Your task to perform on an android device: toggle notifications settings in the gmail app Image 0: 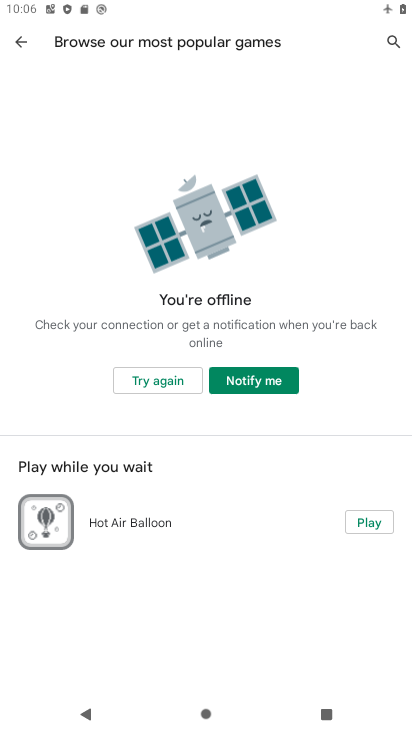
Step 0: press home button
Your task to perform on an android device: toggle notifications settings in the gmail app Image 1: 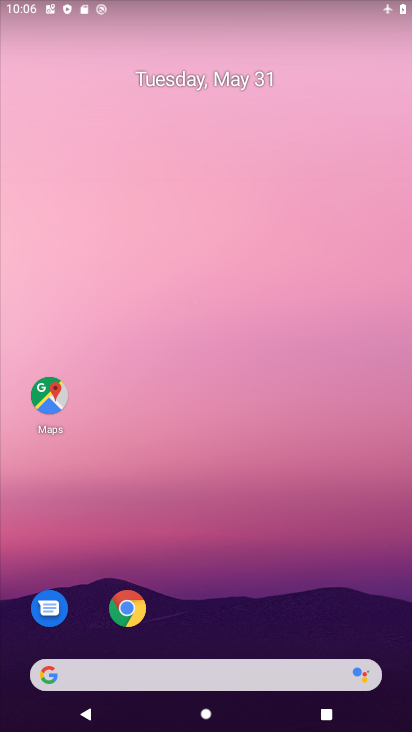
Step 1: drag from (190, 645) to (175, 17)
Your task to perform on an android device: toggle notifications settings in the gmail app Image 2: 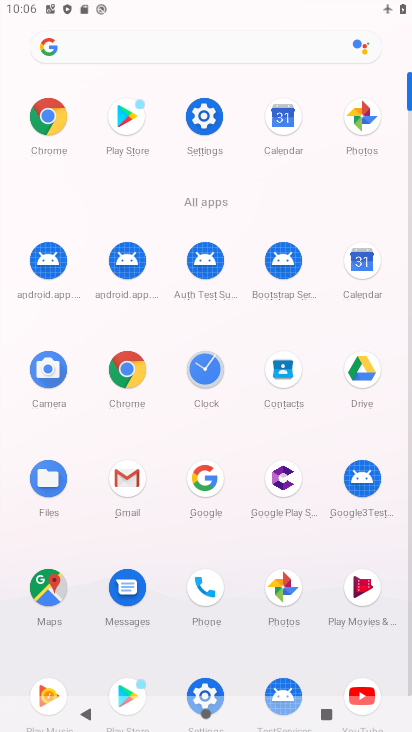
Step 2: click (132, 485)
Your task to perform on an android device: toggle notifications settings in the gmail app Image 3: 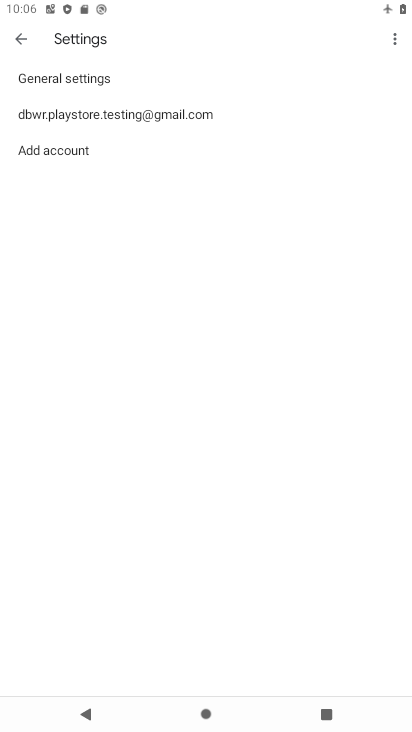
Step 3: click (87, 82)
Your task to perform on an android device: toggle notifications settings in the gmail app Image 4: 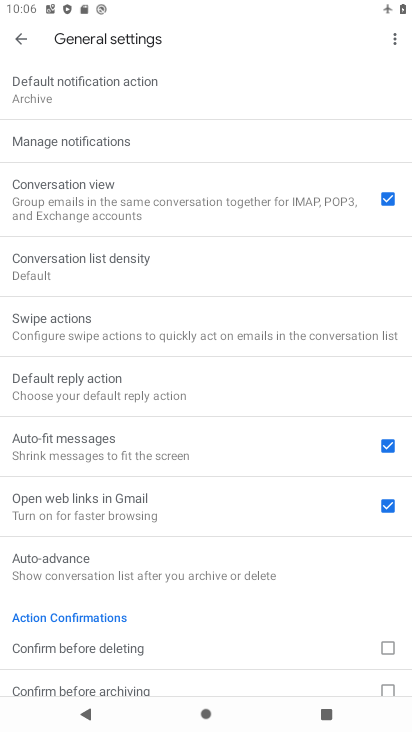
Step 4: click (63, 137)
Your task to perform on an android device: toggle notifications settings in the gmail app Image 5: 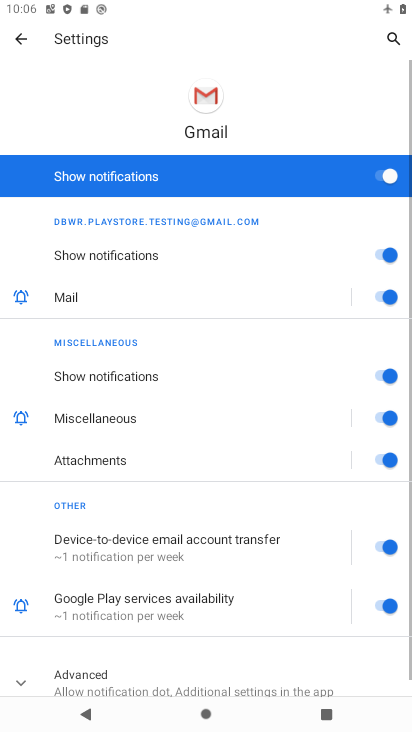
Step 5: click (384, 165)
Your task to perform on an android device: toggle notifications settings in the gmail app Image 6: 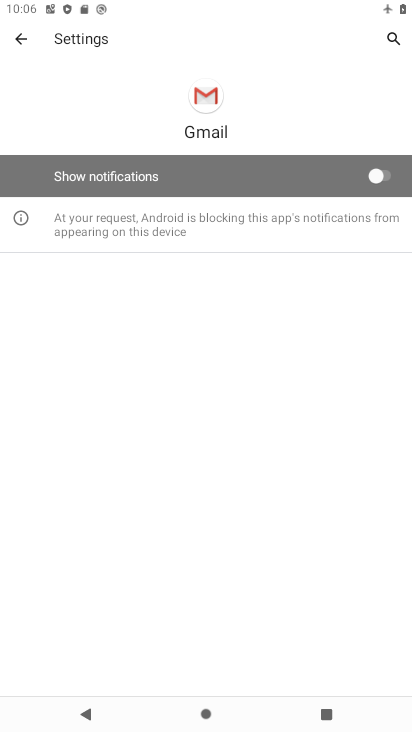
Step 6: task complete